Your task to perform on an android device: turn pop-ups off in chrome Image 0: 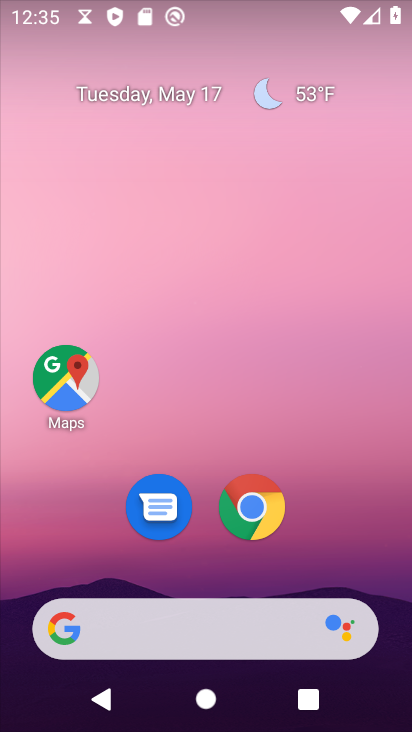
Step 0: click (240, 510)
Your task to perform on an android device: turn pop-ups off in chrome Image 1: 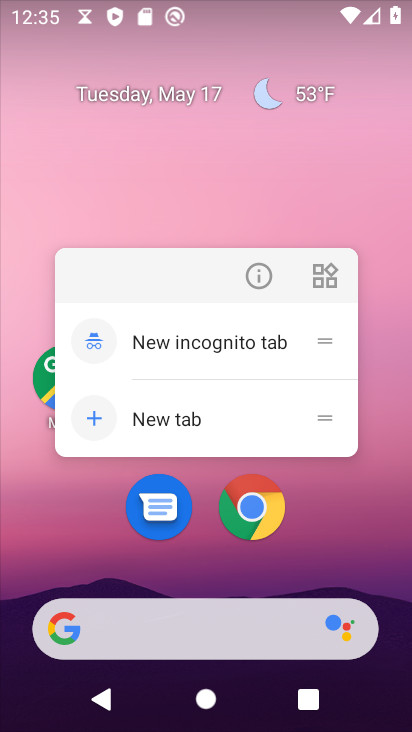
Step 1: click (249, 506)
Your task to perform on an android device: turn pop-ups off in chrome Image 2: 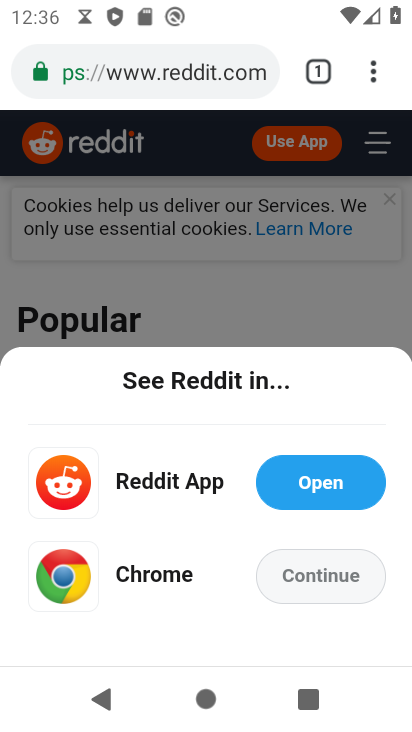
Step 2: click (358, 71)
Your task to perform on an android device: turn pop-ups off in chrome Image 3: 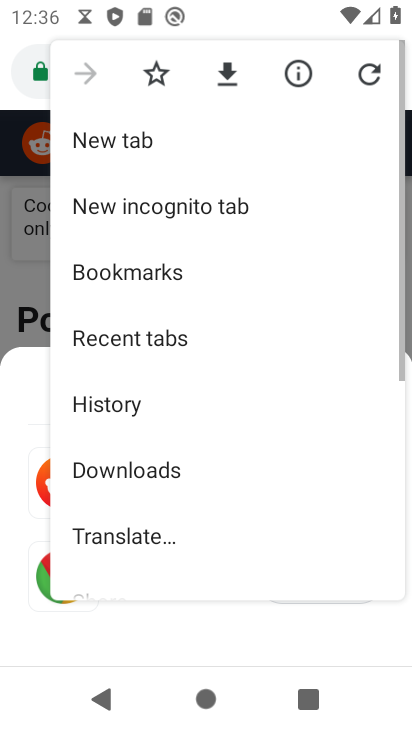
Step 3: drag from (190, 519) to (185, 291)
Your task to perform on an android device: turn pop-ups off in chrome Image 4: 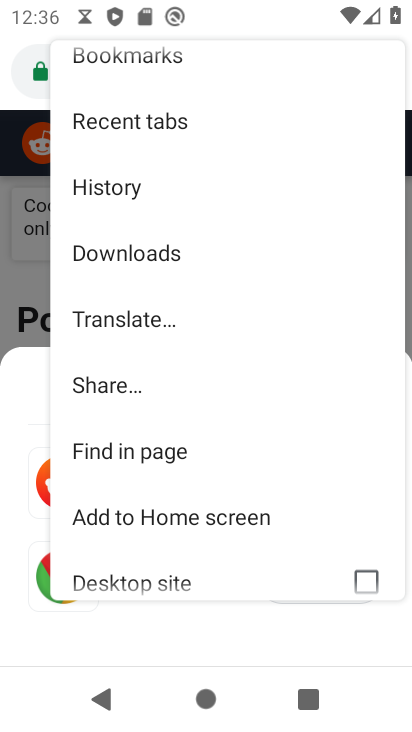
Step 4: drag from (187, 497) to (187, 278)
Your task to perform on an android device: turn pop-ups off in chrome Image 5: 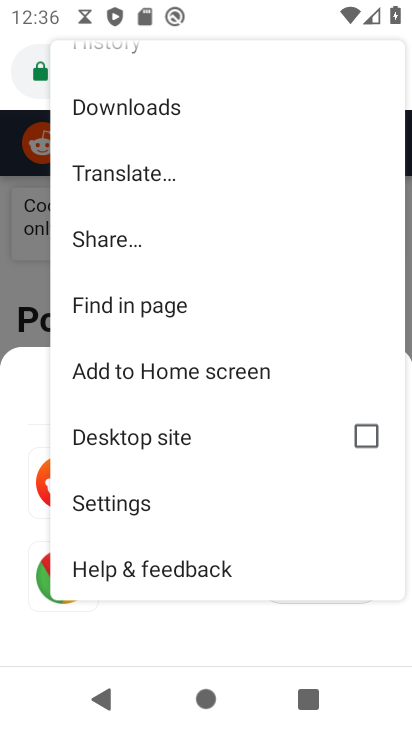
Step 5: click (186, 504)
Your task to perform on an android device: turn pop-ups off in chrome Image 6: 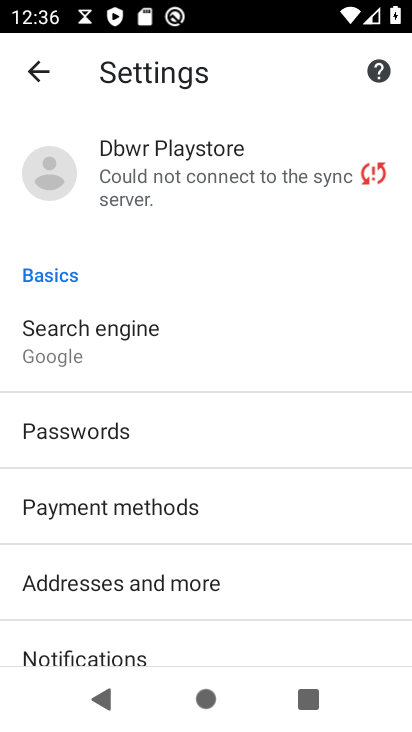
Step 6: drag from (122, 618) to (123, 407)
Your task to perform on an android device: turn pop-ups off in chrome Image 7: 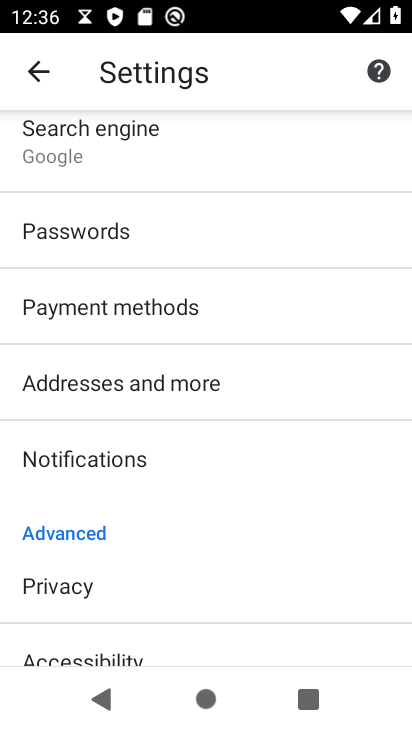
Step 7: drag from (143, 611) to (178, 398)
Your task to perform on an android device: turn pop-ups off in chrome Image 8: 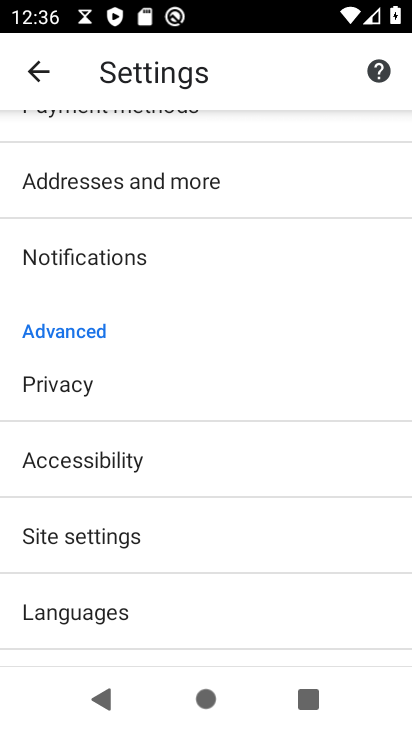
Step 8: drag from (152, 623) to (168, 534)
Your task to perform on an android device: turn pop-ups off in chrome Image 9: 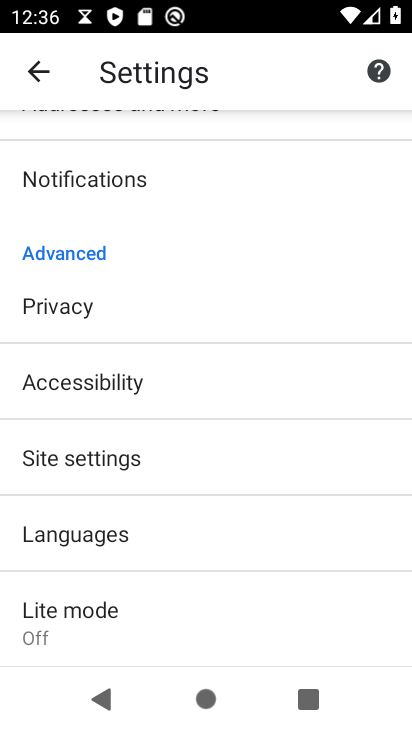
Step 9: click (149, 453)
Your task to perform on an android device: turn pop-ups off in chrome Image 10: 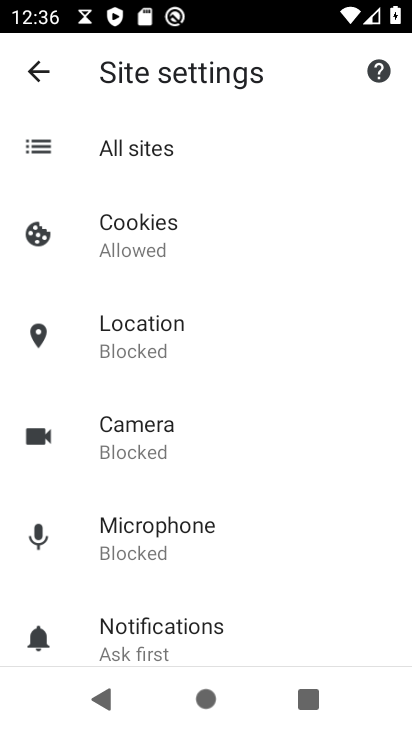
Step 10: drag from (180, 643) to (179, 475)
Your task to perform on an android device: turn pop-ups off in chrome Image 11: 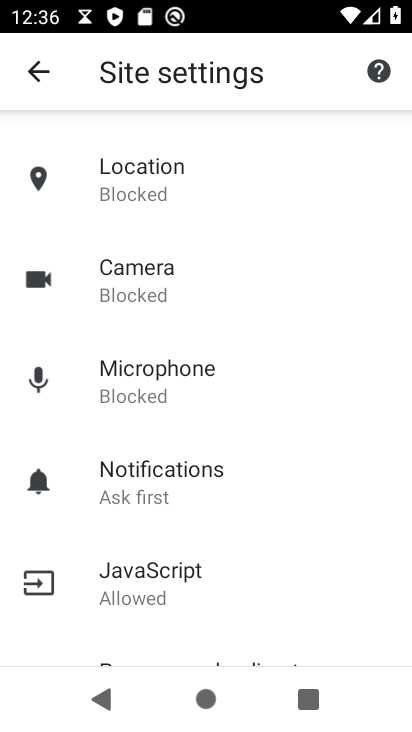
Step 11: drag from (189, 612) to (181, 440)
Your task to perform on an android device: turn pop-ups off in chrome Image 12: 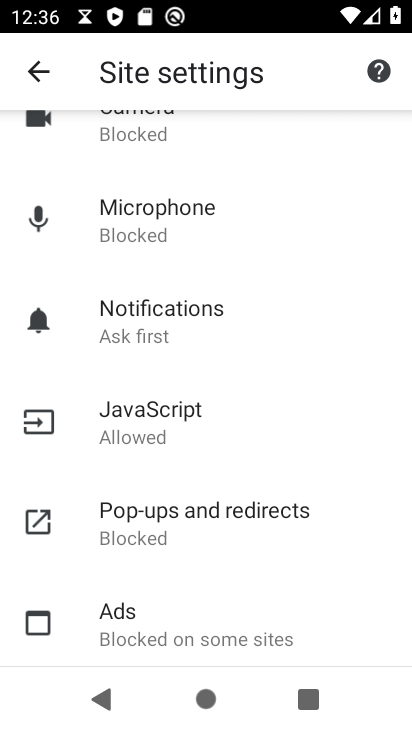
Step 12: click (206, 528)
Your task to perform on an android device: turn pop-ups off in chrome Image 13: 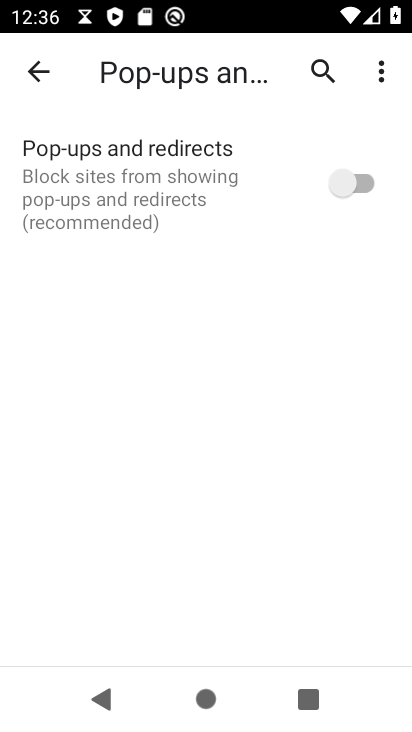
Step 13: task complete